Your task to perform on an android device: Show the shopping cart on costco. Search for "usb-c to usb-a" on costco, select the first entry, add it to the cart, then select checkout. Image 0: 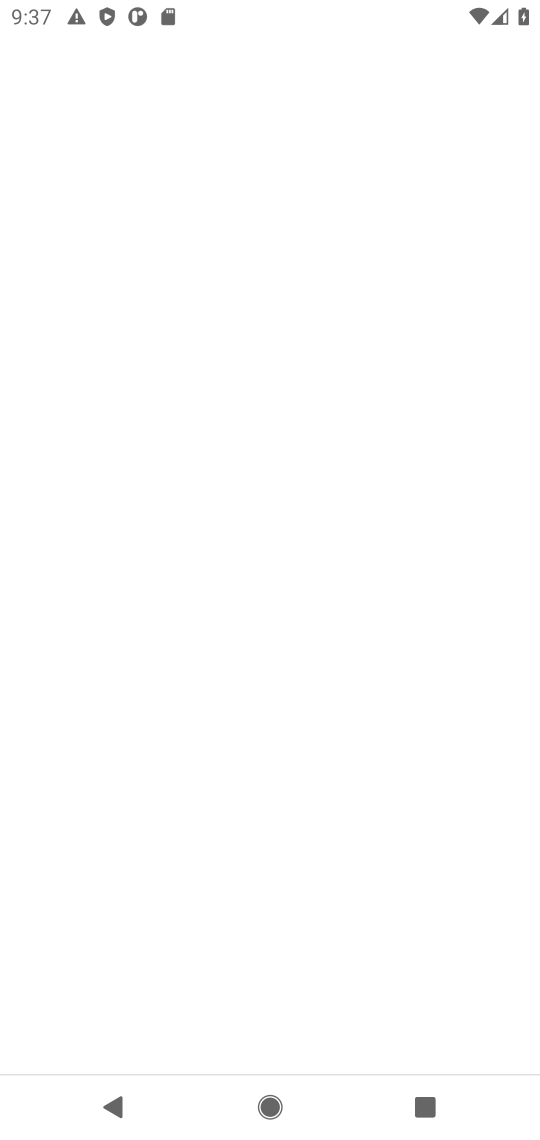
Step 0: press home button
Your task to perform on an android device: Show the shopping cart on costco. Search for "usb-c to usb-a" on costco, select the first entry, add it to the cart, then select checkout. Image 1: 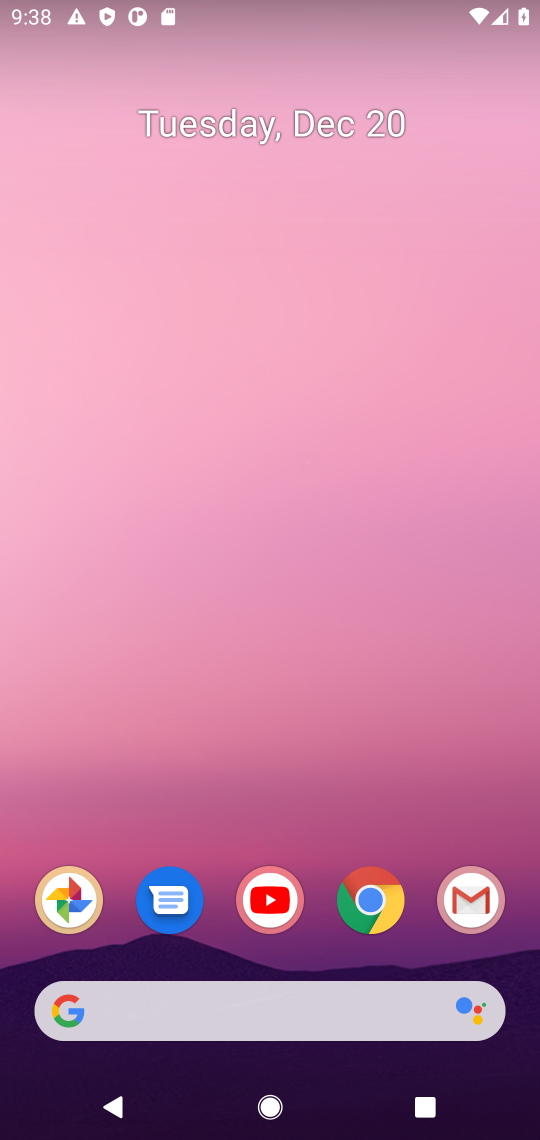
Step 1: click (372, 914)
Your task to perform on an android device: Show the shopping cart on costco. Search for "usb-c to usb-a" on costco, select the first entry, add it to the cart, then select checkout. Image 2: 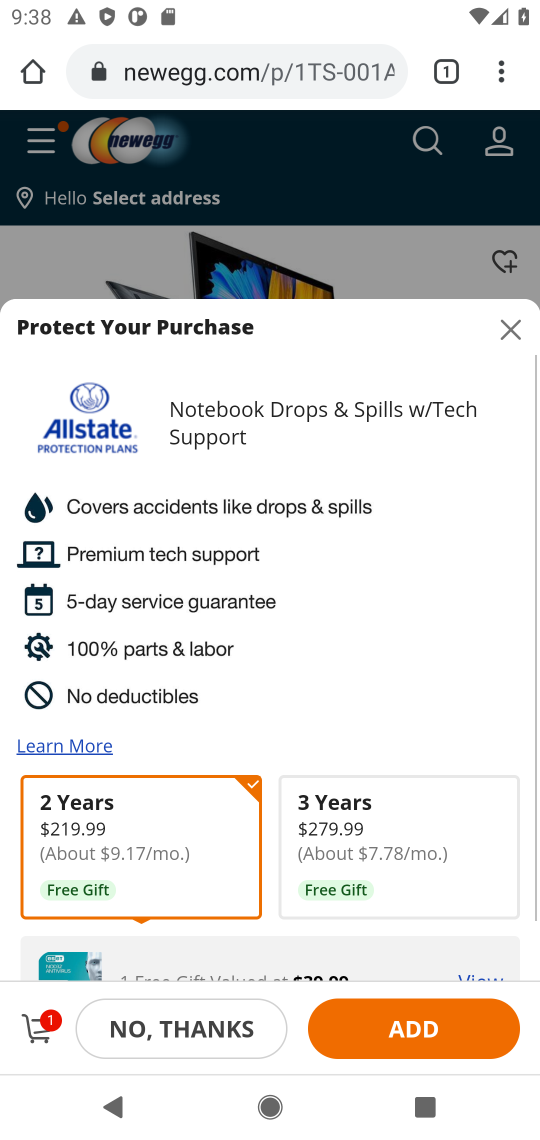
Step 2: click (223, 72)
Your task to perform on an android device: Show the shopping cart on costco. Search for "usb-c to usb-a" on costco, select the first entry, add it to the cart, then select checkout. Image 3: 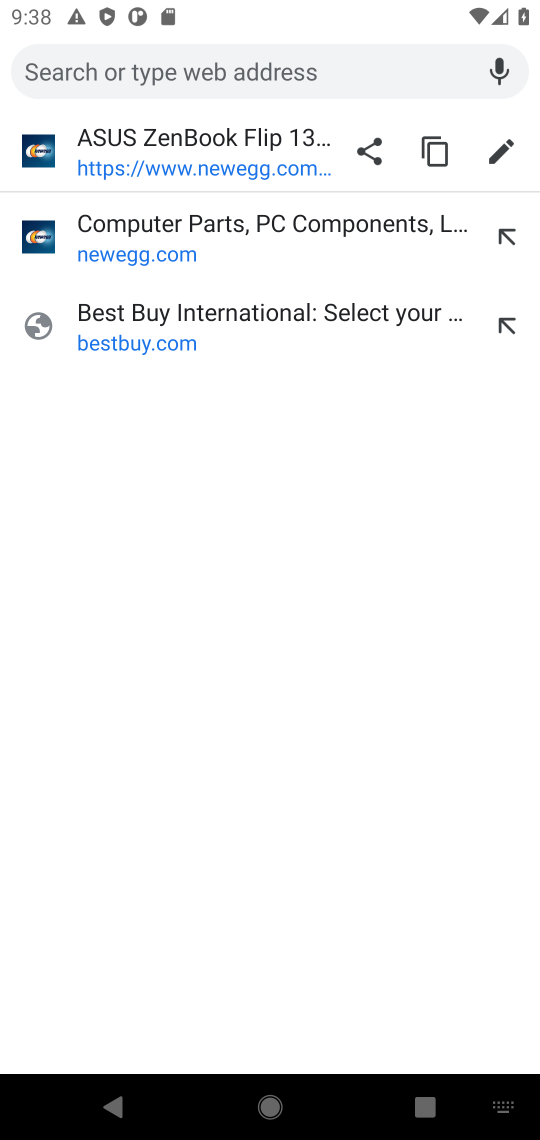
Step 3: type "costco.com"
Your task to perform on an android device: Show the shopping cart on costco. Search for "usb-c to usb-a" on costco, select the first entry, add it to the cart, then select checkout. Image 4: 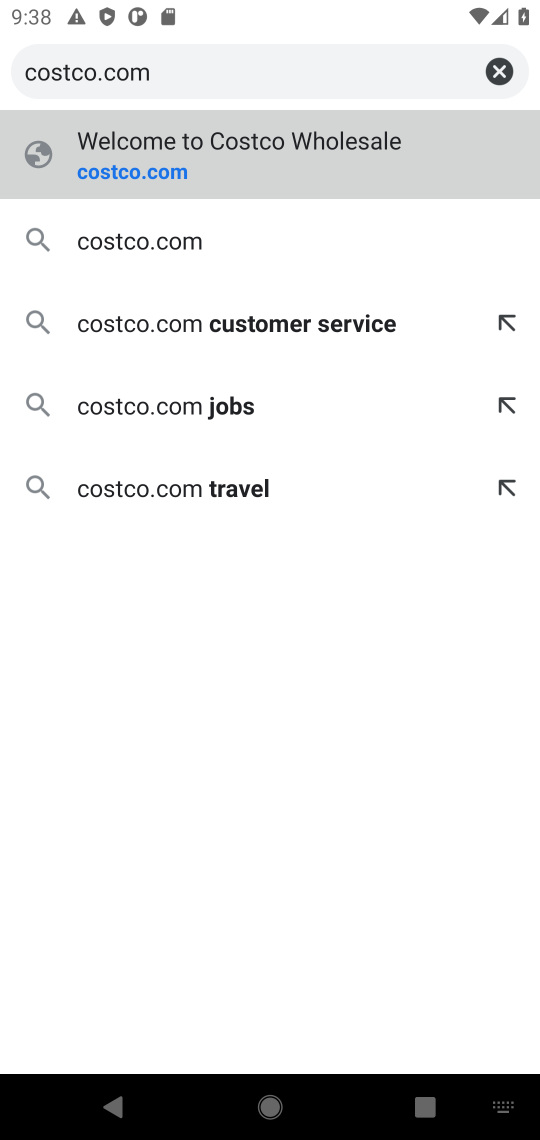
Step 4: click (121, 181)
Your task to perform on an android device: Show the shopping cart on costco. Search for "usb-c to usb-a" on costco, select the first entry, add it to the cart, then select checkout. Image 5: 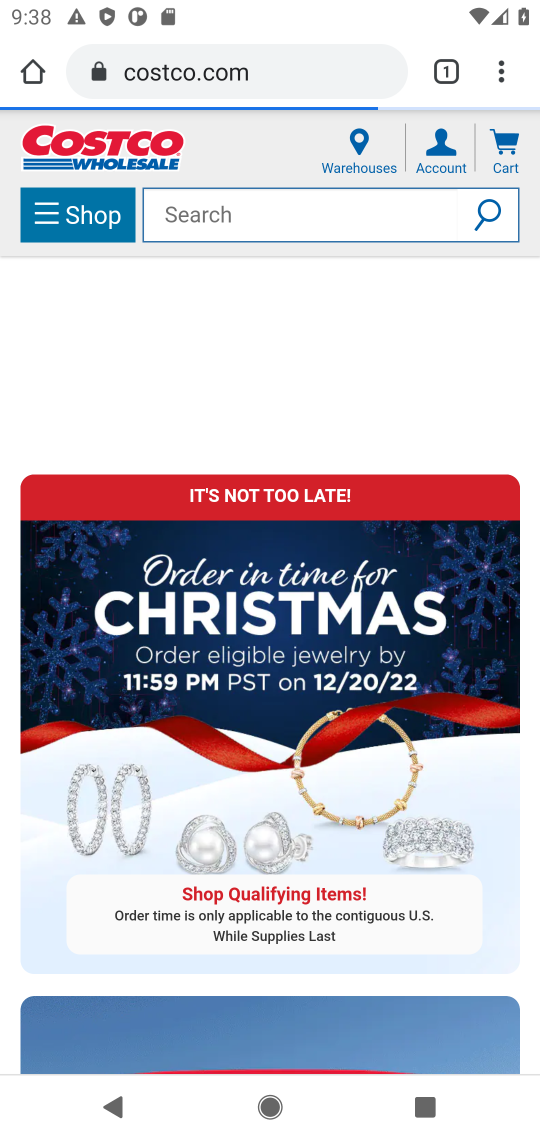
Step 5: click (494, 158)
Your task to perform on an android device: Show the shopping cart on costco. Search for "usb-c to usb-a" on costco, select the first entry, add it to the cart, then select checkout. Image 6: 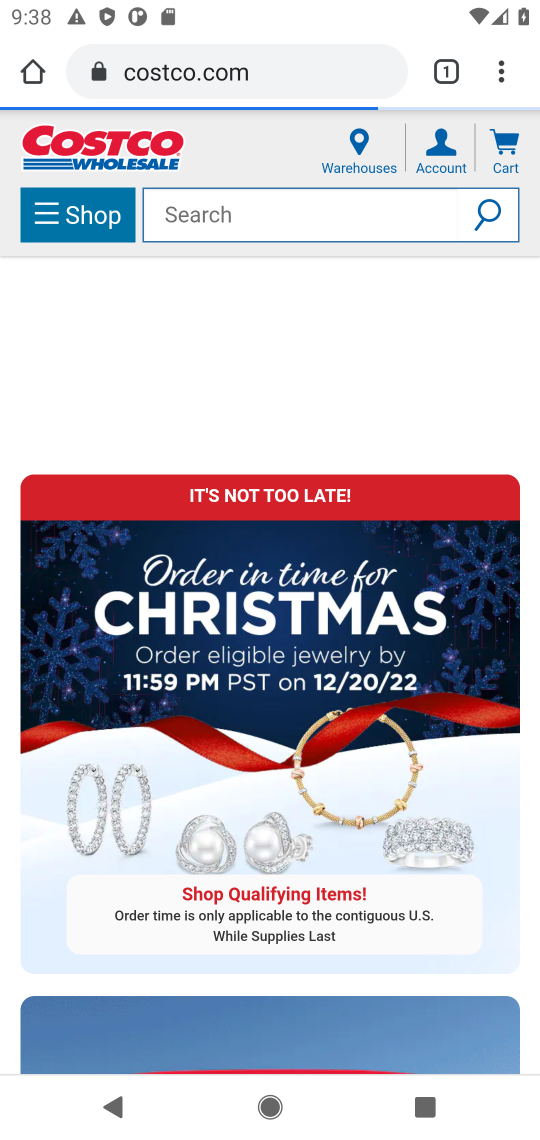
Step 6: click (505, 162)
Your task to perform on an android device: Show the shopping cart on costco. Search for "usb-c to usb-a" on costco, select the first entry, add it to the cart, then select checkout. Image 7: 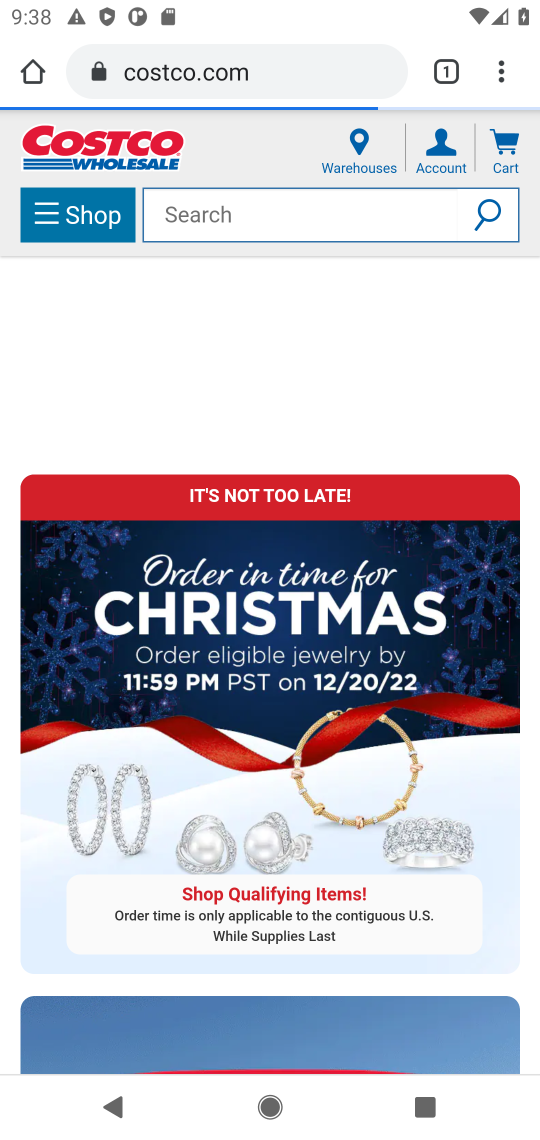
Step 7: click (501, 152)
Your task to perform on an android device: Show the shopping cart on costco. Search for "usb-c to usb-a" on costco, select the first entry, add it to the cart, then select checkout. Image 8: 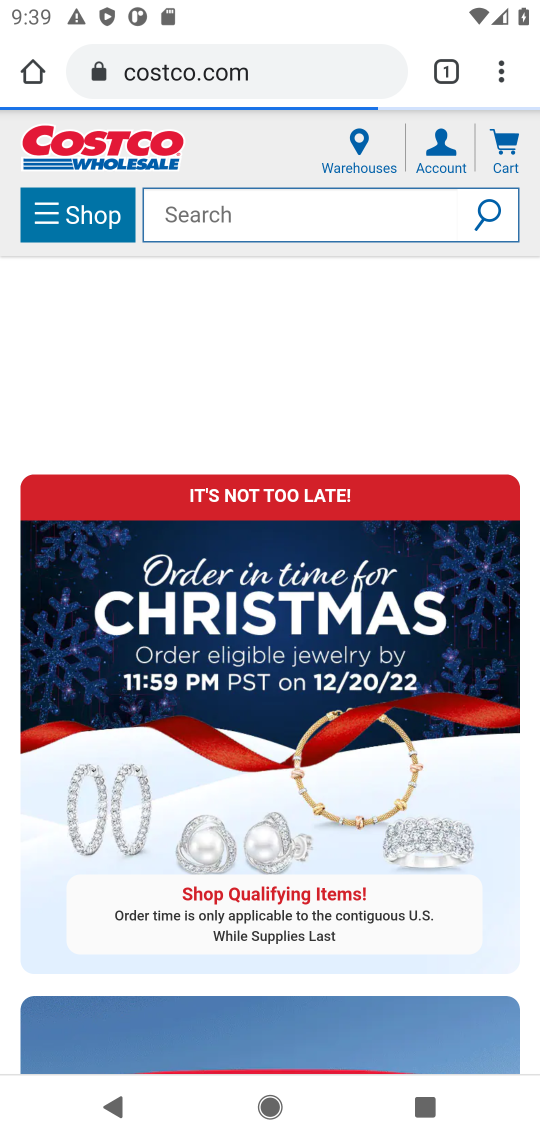
Step 8: click (501, 152)
Your task to perform on an android device: Show the shopping cart on costco. Search for "usb-c to usb-a" on costco, select the first entry, add it to the cart, then select checkout. Image 9: 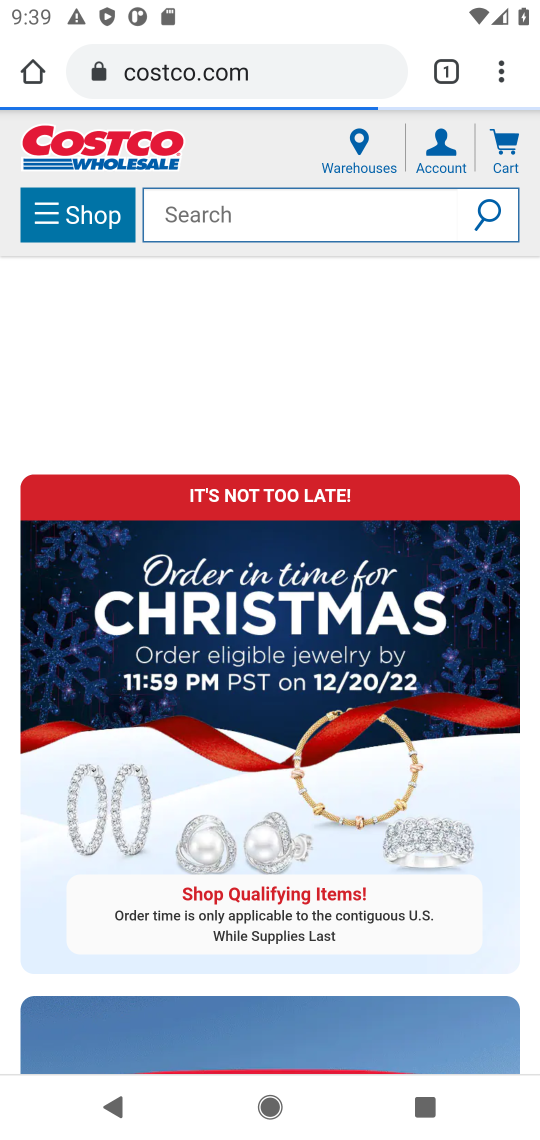
Step 9: click (507, 148)
Your task to perform on an android device: Show the shopping cart on costco. Search for "usb-c to usb-a" on costco, select the first entry, add it to the cart, then select checkout. Image 10: 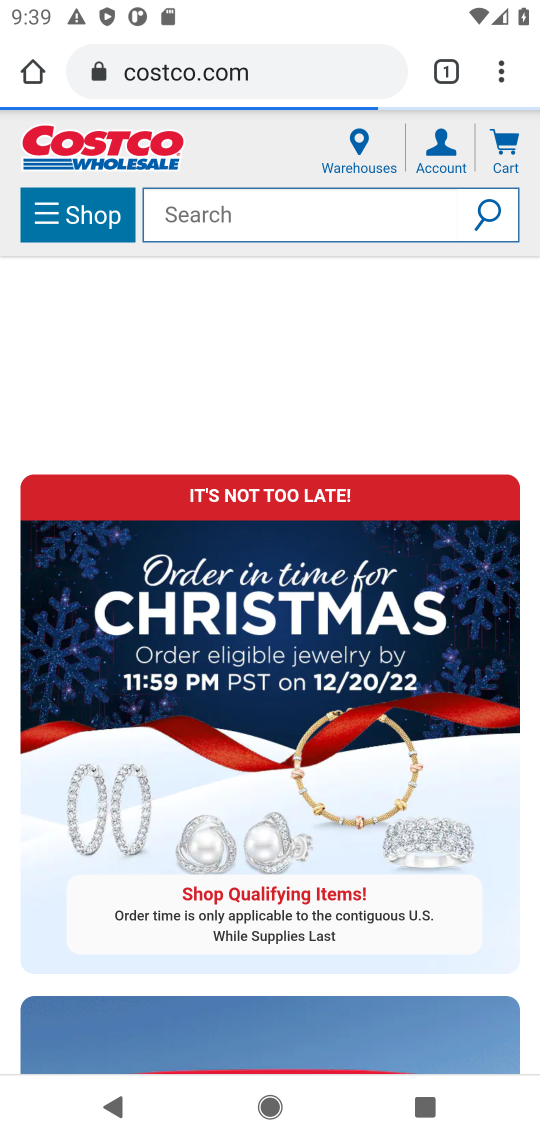
Step 10: click (507, 148)
Your task to perform on an android device: Show the shopping cart on costco. Search for "usb-c to usb-a" on costco, select the first entry, add it to the cart, then select checkout. Image 11: 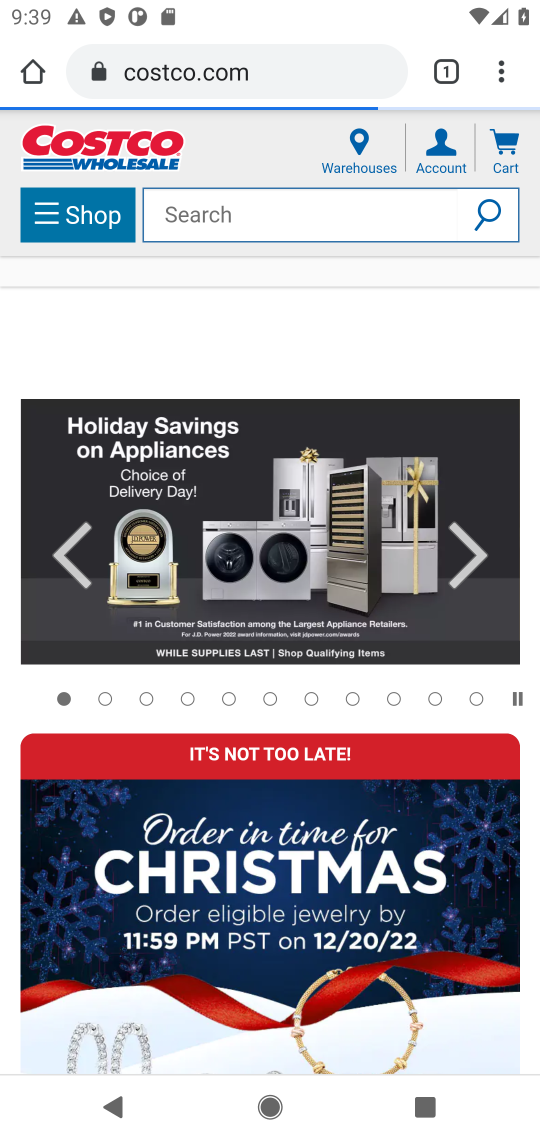
Step 11: click (501, 149)
Your task to perform on an android device: Show the shopping cart on costco. Search for "usb-c to usb-a" on costco, select the first entry, add it to the cart, then select checkout. Image 12: 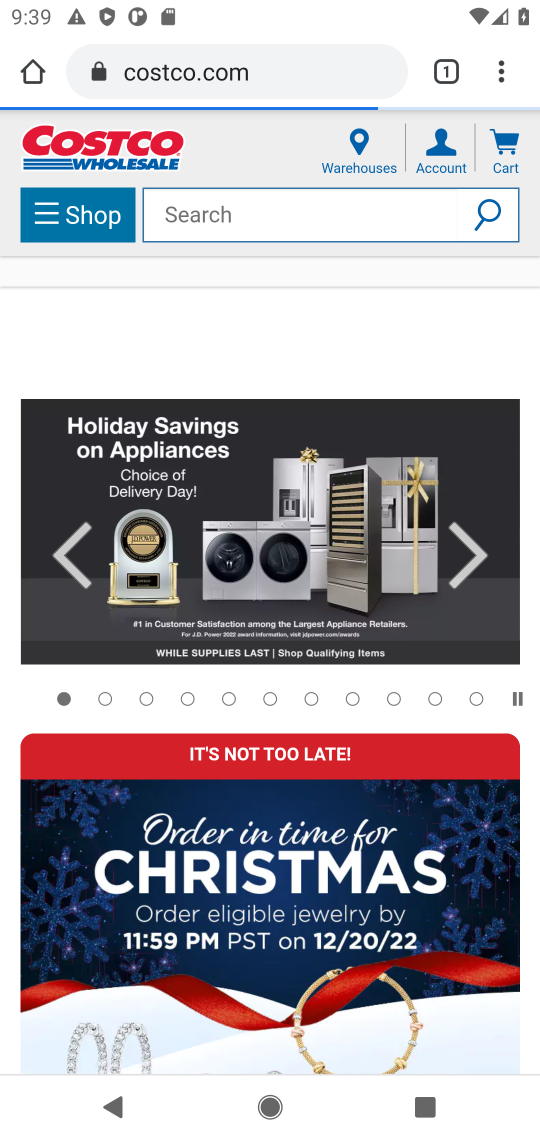
Step 12: click (505, 160)
Your task to perform on an android device: Show the shopping cart on costco. Search for "usb-c to usb-a" on costco, select the first entry, add it to the cart, then select checkout. Image 13: 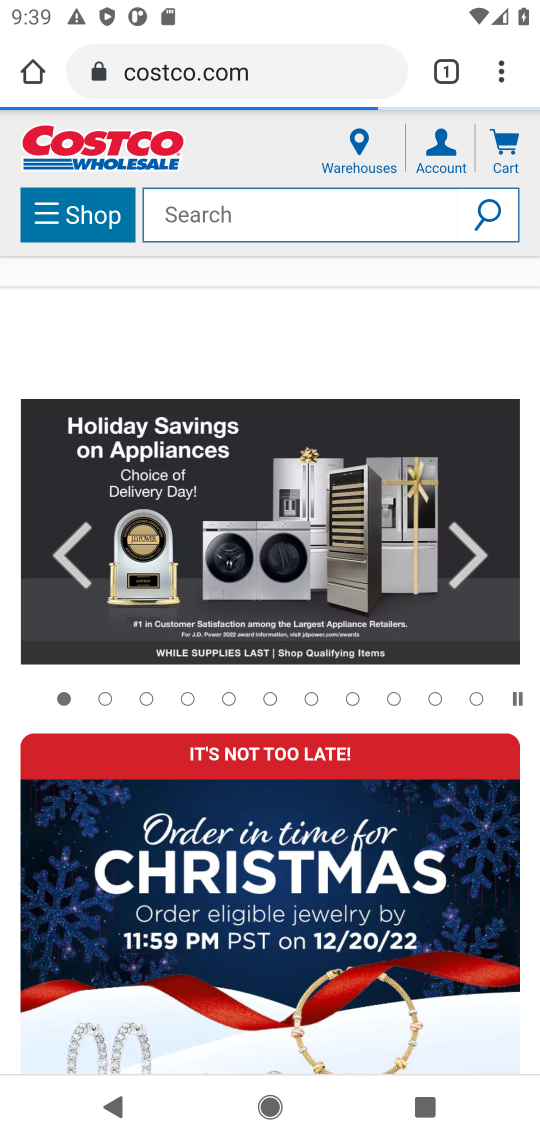
Step 13: click (505, 150)
Your task to perform on an android device: Show the shopping cart on costco. Search for "usb-c to usb-a" on costco, select the first entry, add it to the cart, then select checkout. Image 14: 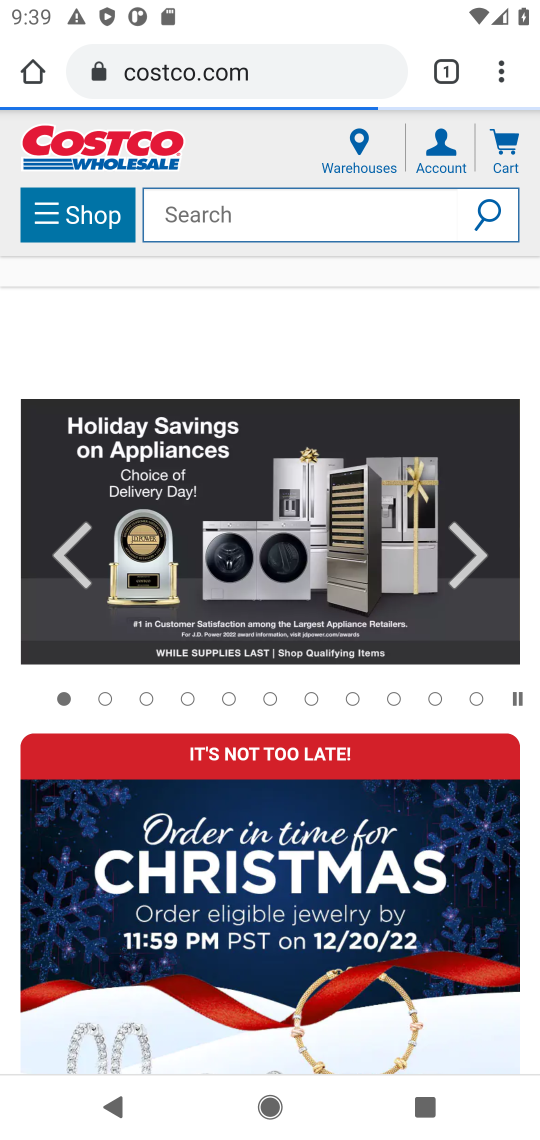
Step 14: click (258, 75)
Your task to perform on an android device: Show the shopping cart on costco. Search for "usb-c to usb-a" on costco, select the first entry, add it to the cart, then select checkout. Image 15: 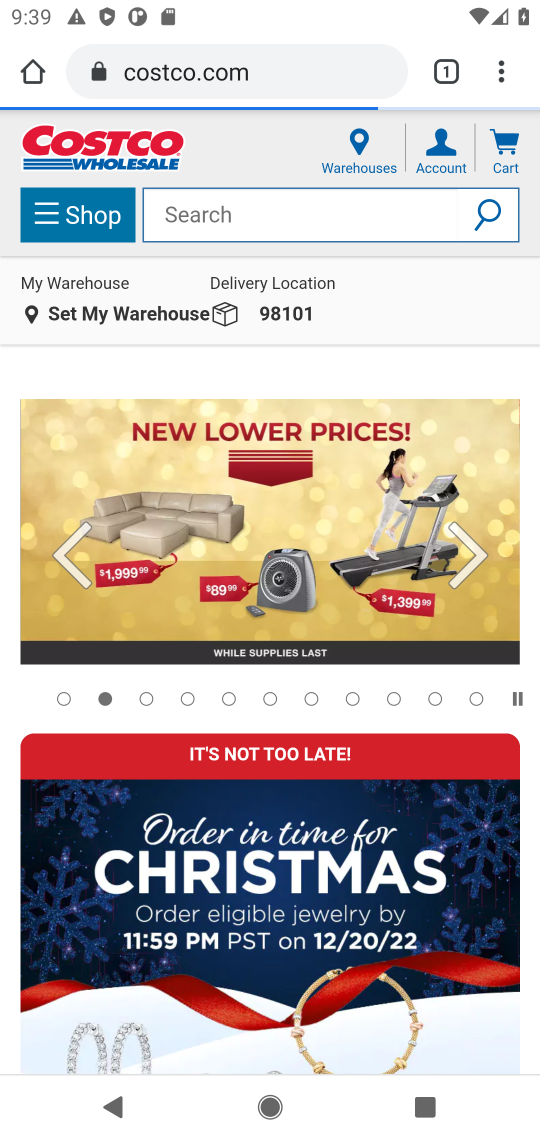
Step 15: click (509, 152)
Your task to perform on an android device: Show the shopping cart on costco. Search for "usb-c to usb-a" on costco, select the first entry, add it to the cart, then select checkout. Image 16: 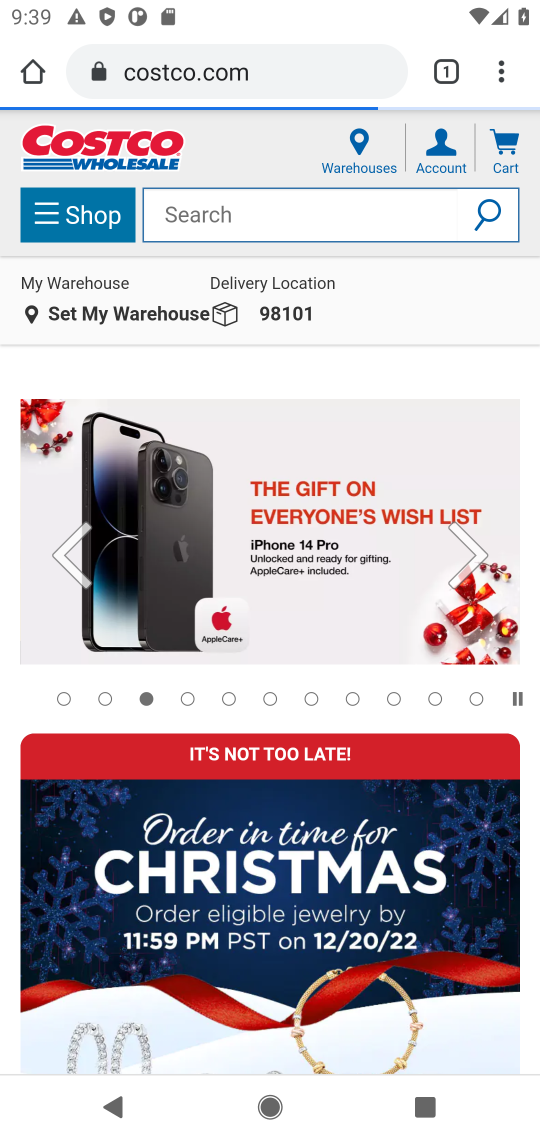
Step 16: click (502, 154)
Your task to perform on an android device: Show the shopping cart on costco. Search for "usb-c to usb-a" on costco, select the first entry, add it to the cart, then select checkout. Image 17: 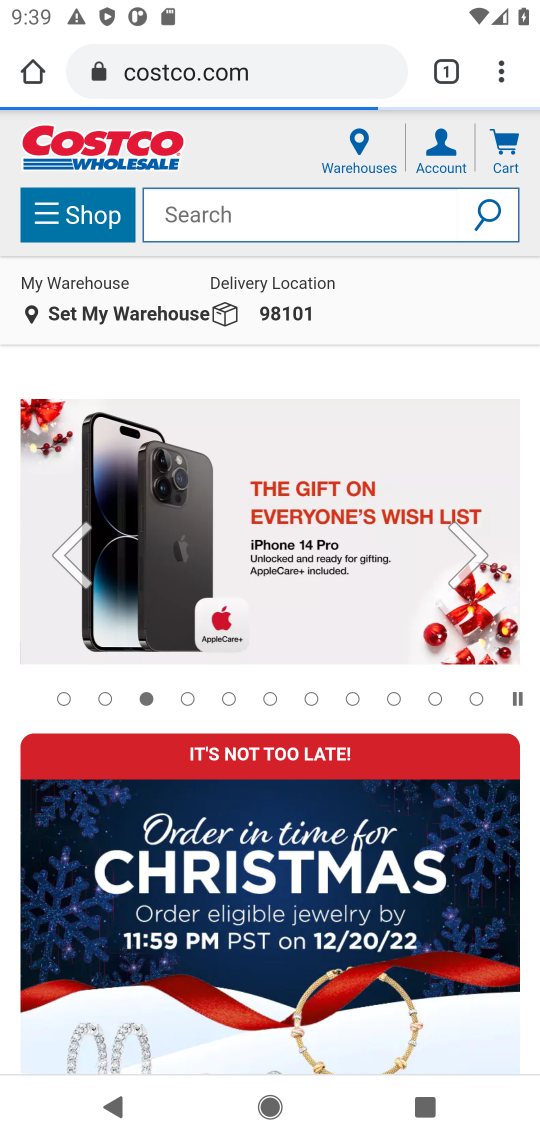
Step 17: drag from (356, 272) to (313, 612)
Your task to perform on an android device: Show the shopping cart on costco. Search for "usb-c to usb-a" on costco, select the first entry, add it to the cart, then select checkout. Image 18: 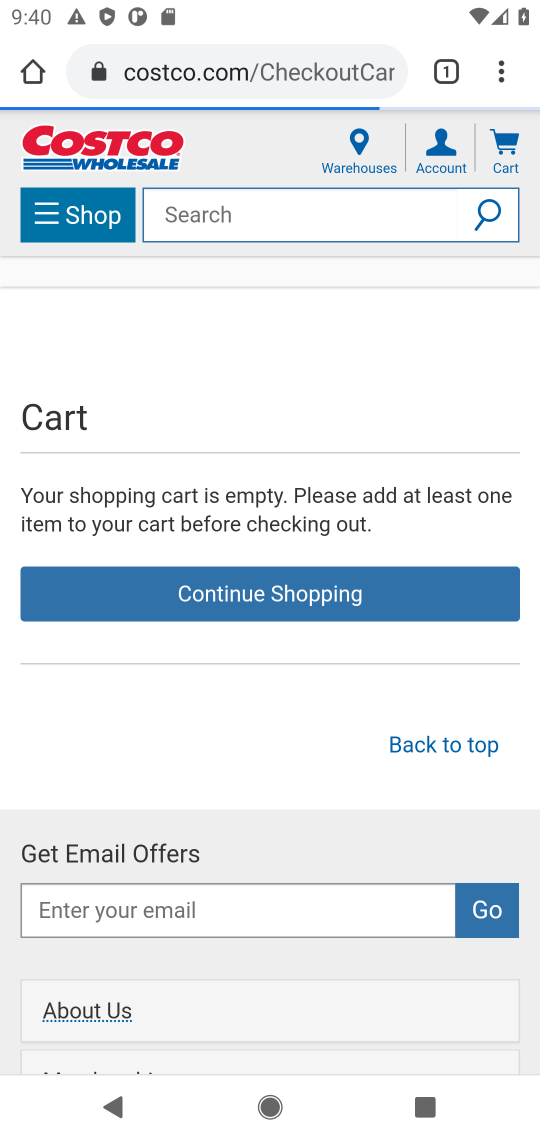
Step 18: click (173, 217)
Your task to perform on an android device: Show the shopping cart on costco. Search for "usb-c to usb-a" on costco, select the first entry, add it to the cart, then select checkout. Image 19: 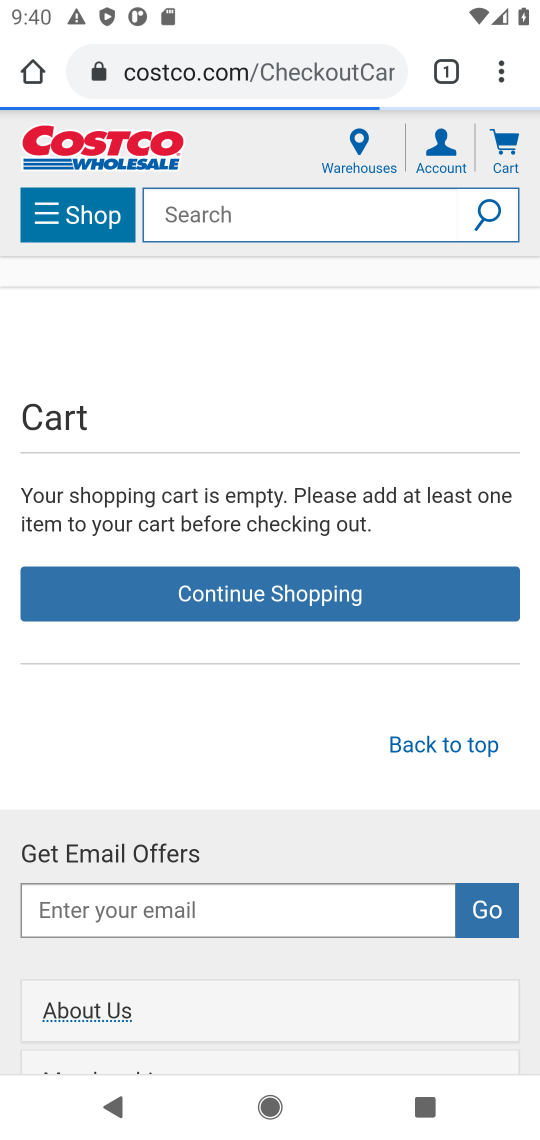
Step 19: click (173, 217)
Your task to perform on an android device: Show the shopping cart on costco. Search for "usb-c to usb-a" on costco, select the first entry, add it to the cart, then select checkout. Image 20: 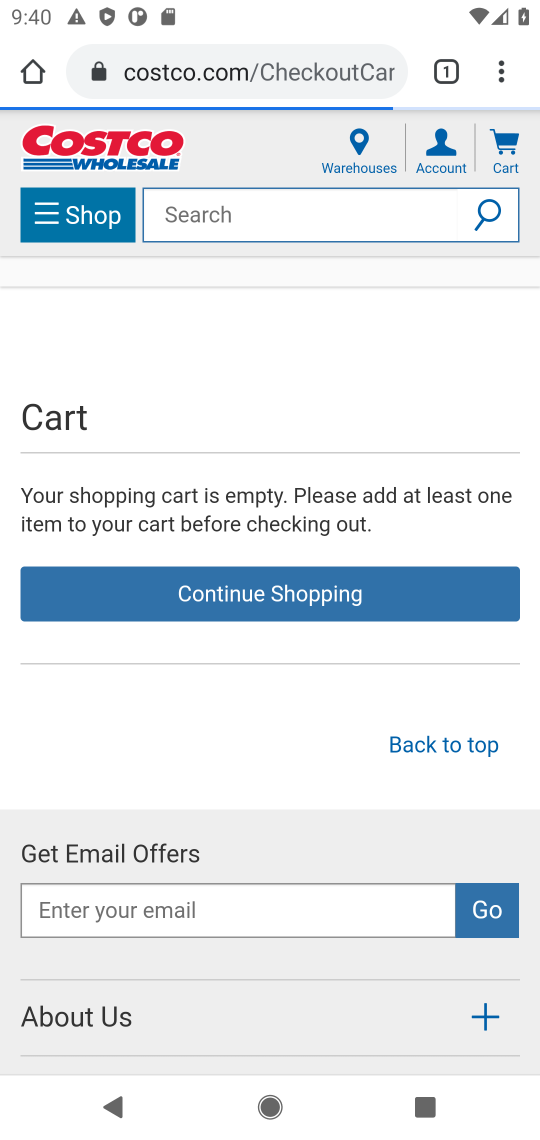
Step 20: type "usb-c to usb-a"
Your task to perform on an android device: Show the shopping cart on costco. Search for "usb-c to usb-a" on costco, select the first entry, add it to the cart, then select checkout. Image 21: 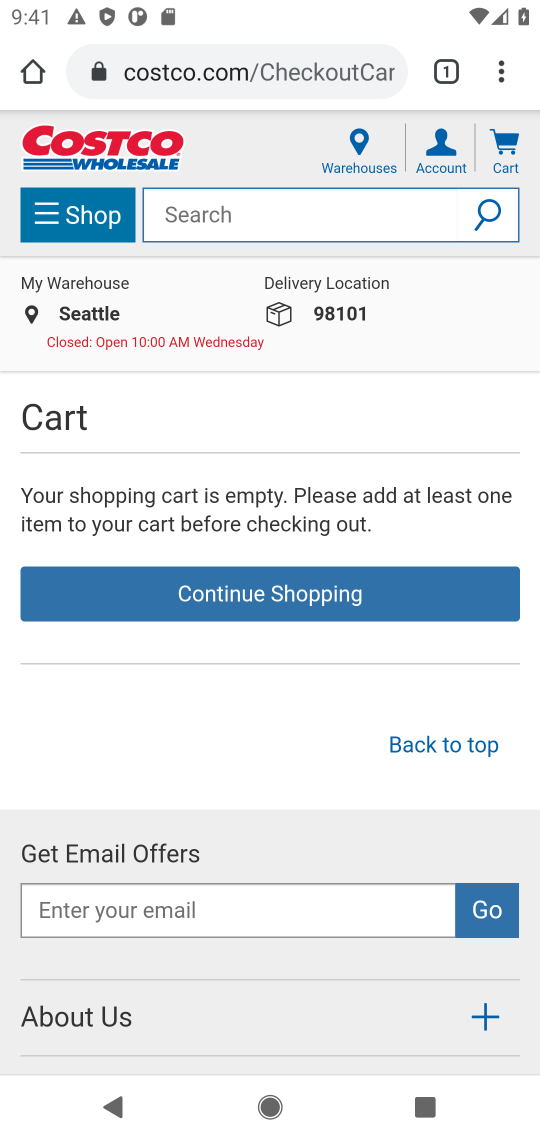
Step 21: click (192, 225)
Your task to perform on an android device: Show the shopping cart on costco. Search for "usb-c to usb-a" on costco, select the first entry, add it to the cart, then select checkout. Image 22: 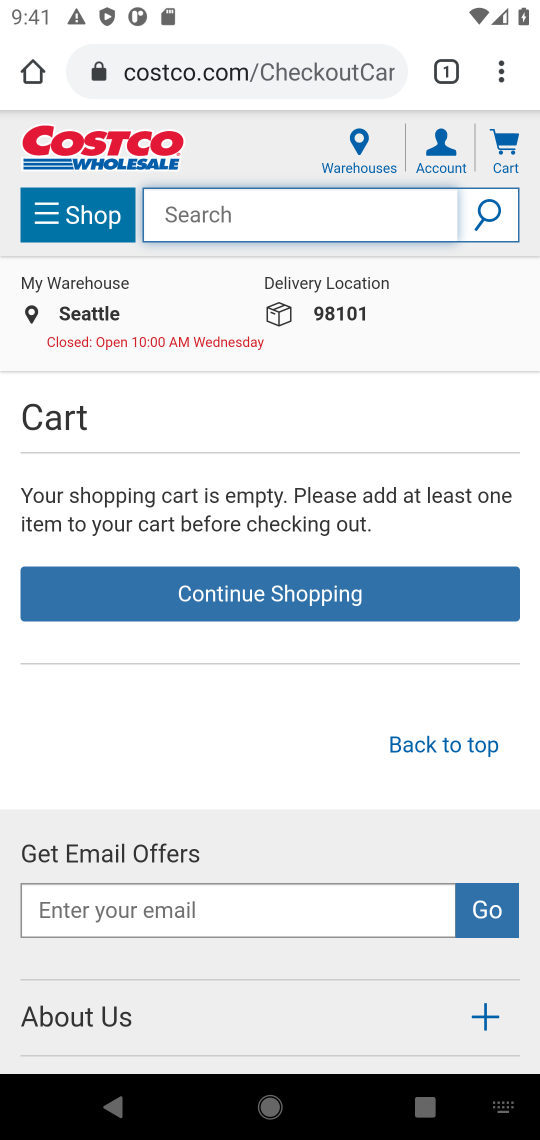
Step 22: type "usb-c to usb-a"
Your task to perform on an android device: Show the shopping cart on costco. Search for "usb-c to usb-a" on costco, select the first entry, add it to the cart, then select checkout. Image 23: 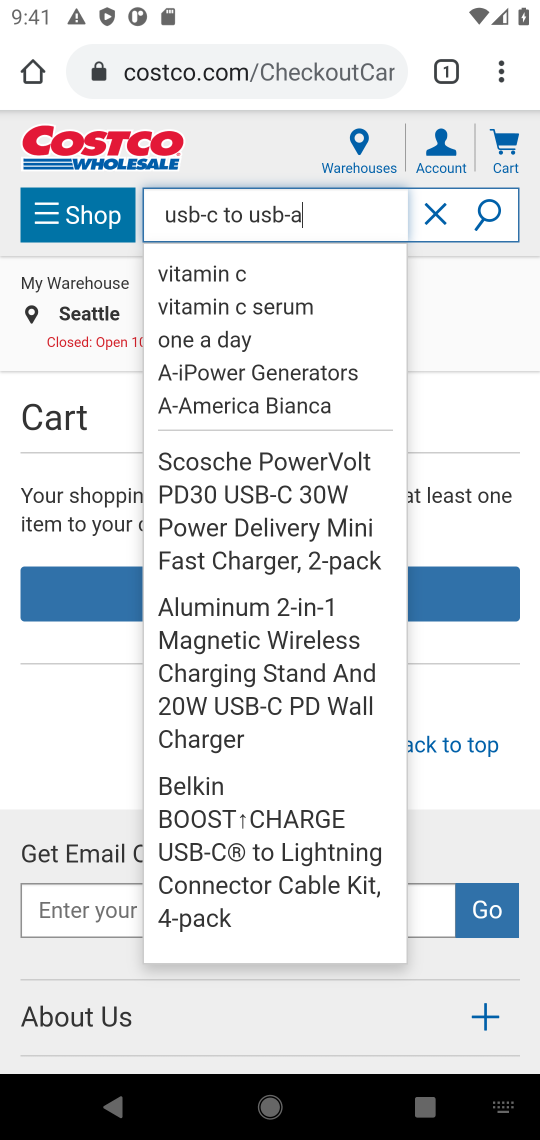
Step 23: click (487, 216)
Your task to perform on an android device: Show the shopping cart on costco. Search for "usb-c to usb-a" on costco, select the first entry, add it to the cart, then select checkout. Image 24: 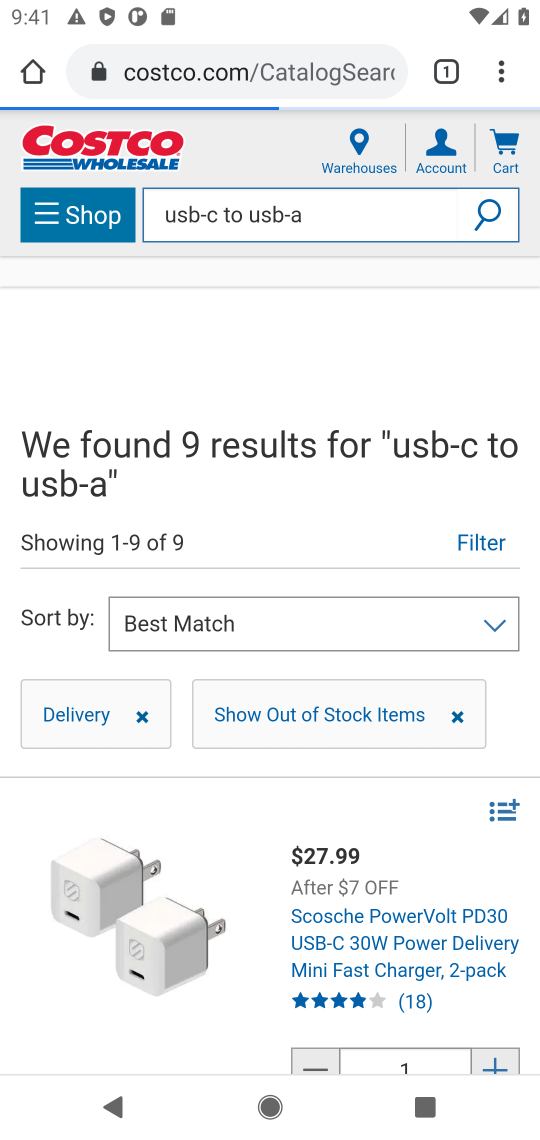
Step 24: task complete